Your task to perform on an android device: Open eBay Image 0: 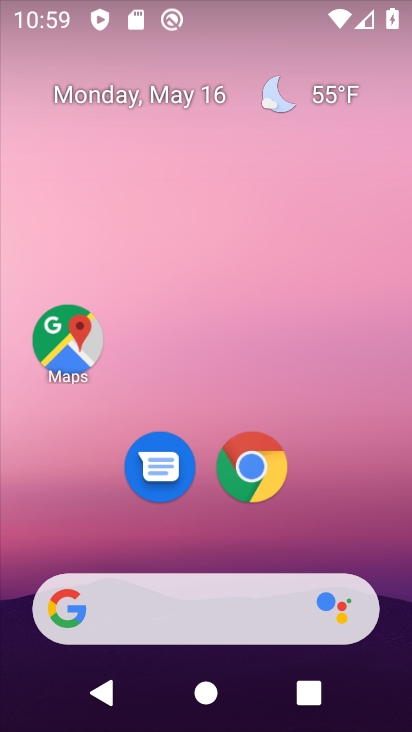
Step 0: click (259, 454)
Your task to perform on an android device: Open eBay Image 1: 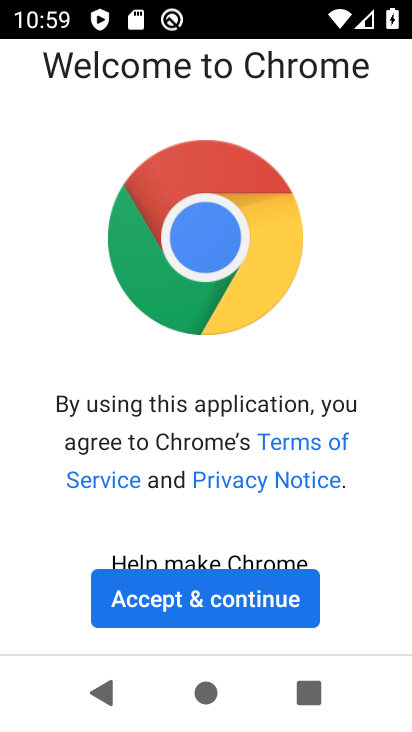
Step 1: click (204, 585)
Your task to perform on an android device: Open eBay Image 2: 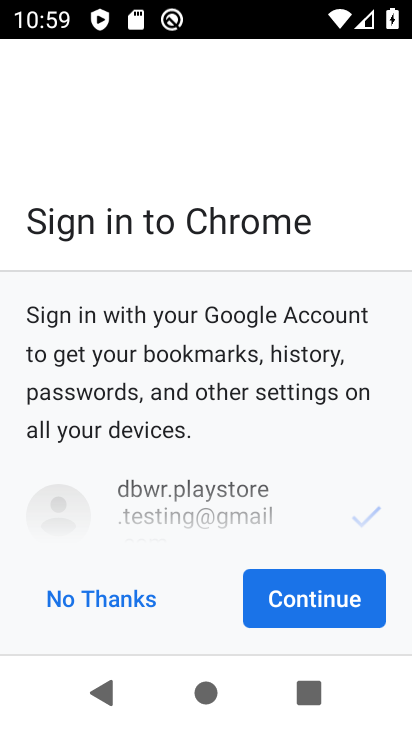
Step 2: click (322, 596)
Your task to perform on an android device: Open eBay Image 3: 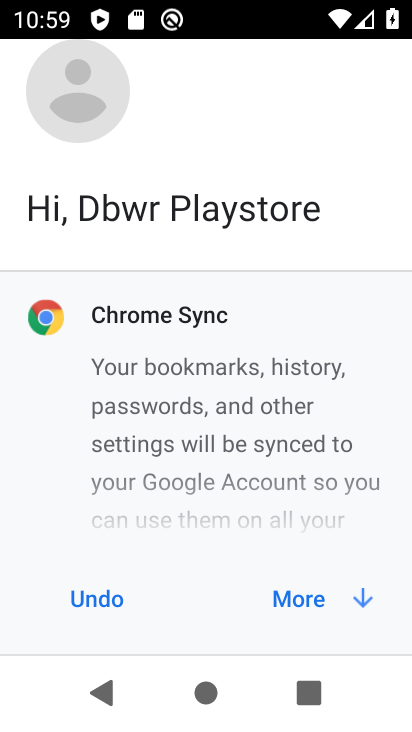
Step 3: click (291, 593)
Your task to perform on an android device: Open eBay Image 4: 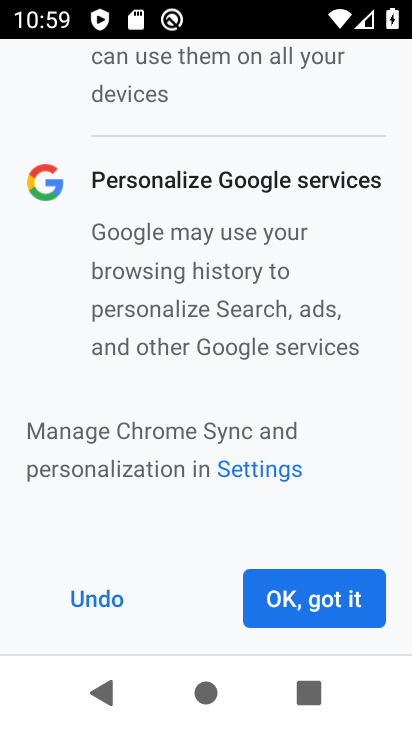
Step 4: click (312, 604)
Your task to perform on an android device: Open eBay Image 5: 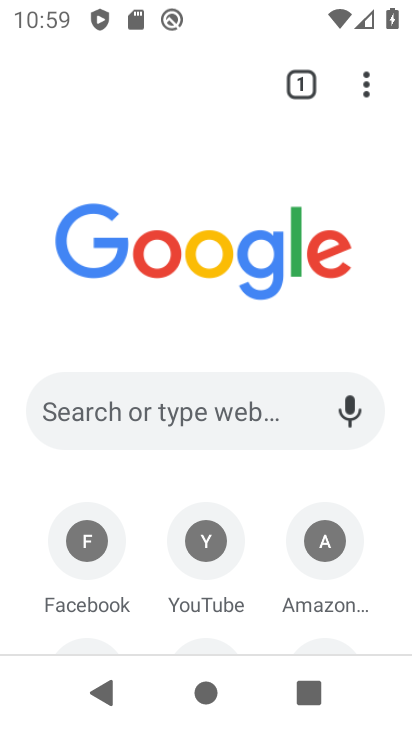
Step 5: drag from (303, 590) to (332, 211)
Your task to perform on an android device: Open eBay Image 6: 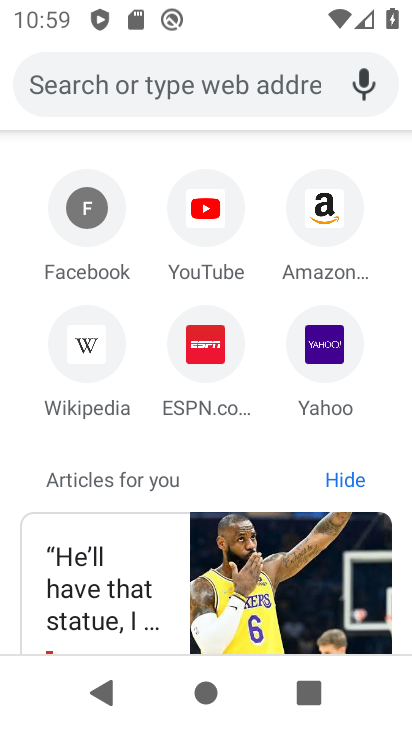
Step 6: click (241, 92)
Your task to perform on an android device: Open eBay Image 7: 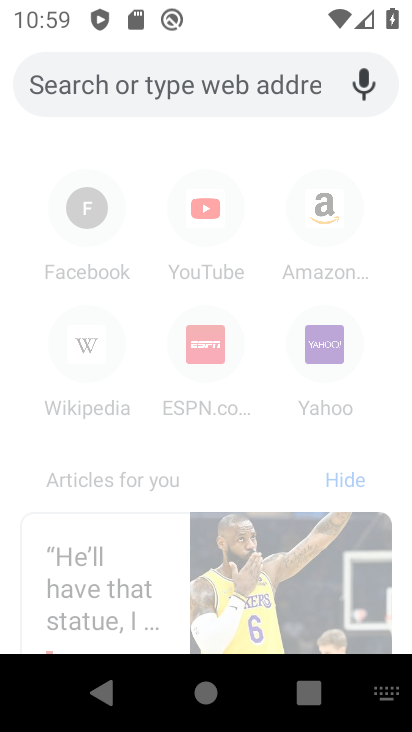
Step 7: type "eBay"
Your task to perform on an android device: Open eBay Image 8: 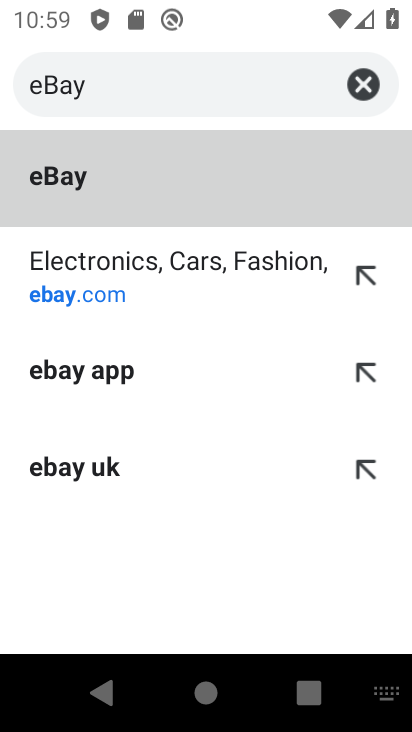
Step 8: task complete